Your task to perform on an android device: Open the map Image 0: 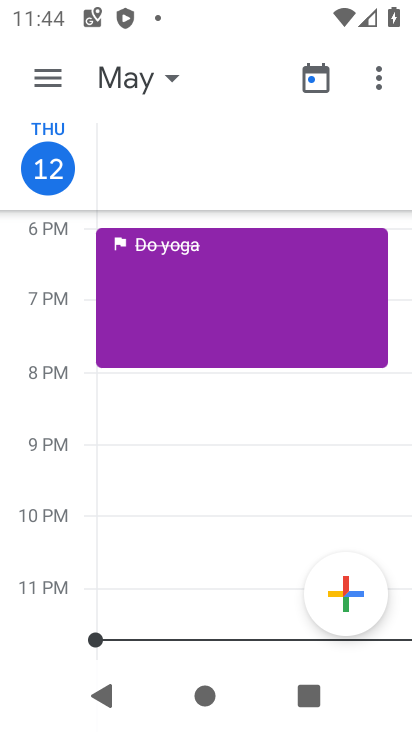
Step 0: press home button
Your task to perform on an android device: Open the map Image 1: 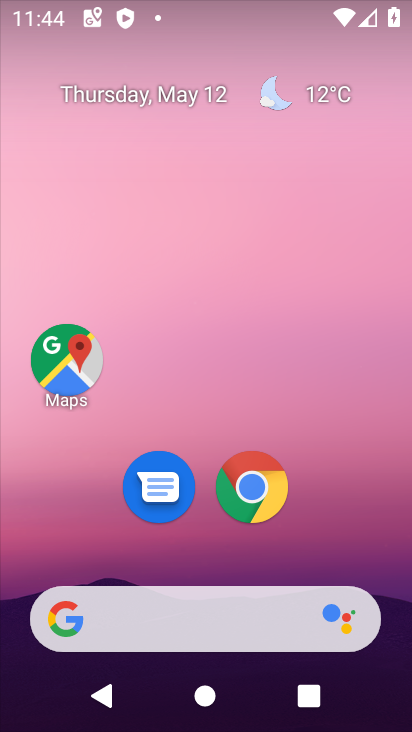
Step 1: click (64, 364)
Your task to perform on an android device: Open the map Image 2: 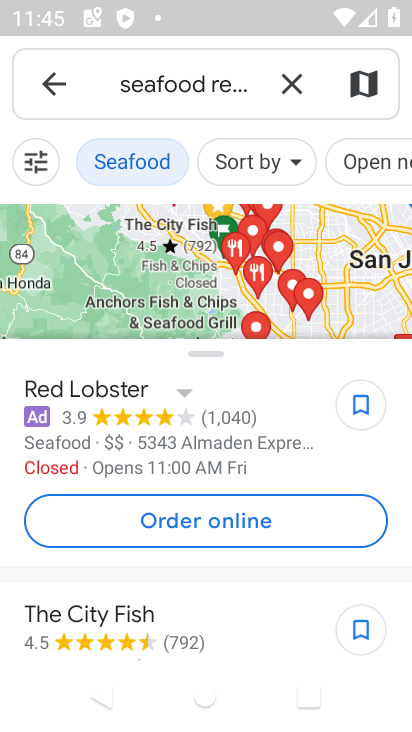
Step 2: task complete